Your task to perform on an android device: What's the weather going to be this weekend? Image 0: 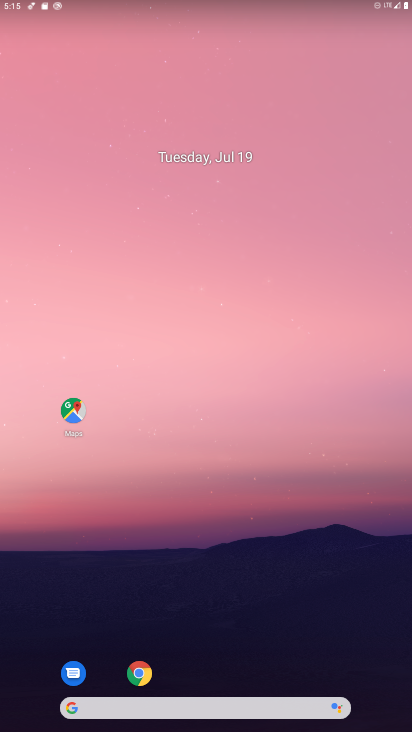
Step 0: press home button
Your task to perform on an android device: What's the weather going to be this weekend? Image 1: 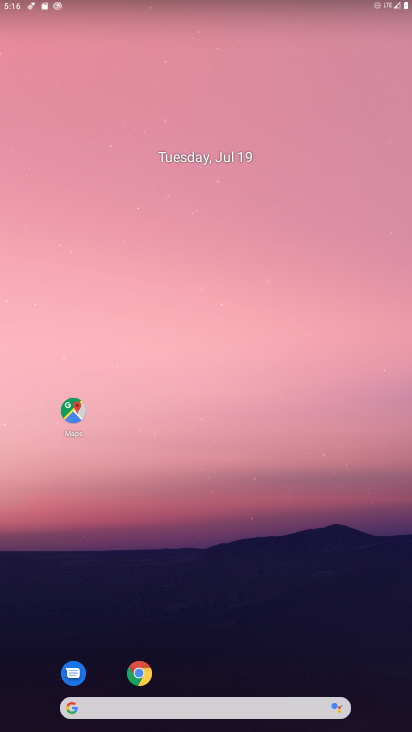
Step 1: click (176, 699)
Your task to perform on an android device: What's the weather going to be this weekend? Image 2: 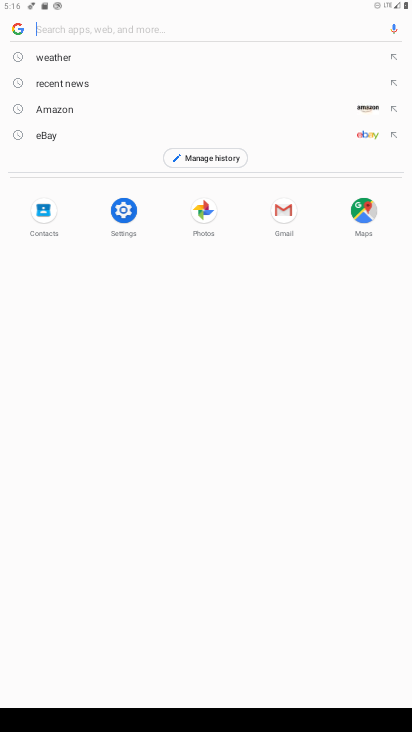
Step 2: click (76, 51)
Your task to perform on an android device: What's the weather going to be this weekend? Image 3: 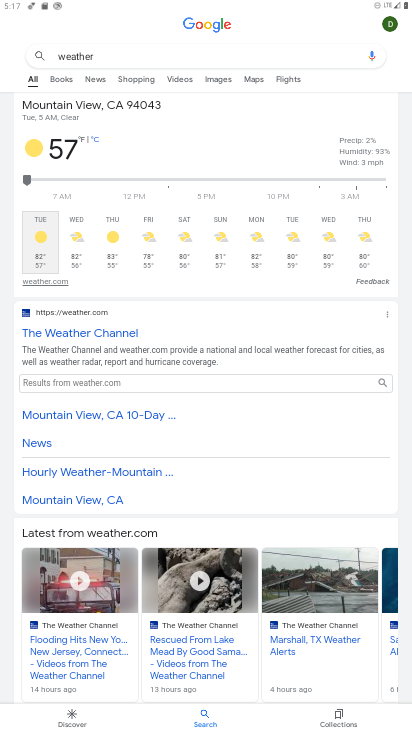
Step 3: click (186, 236)
Your task to perform on an android device: What's the weather going to be this weekend? Image 4: 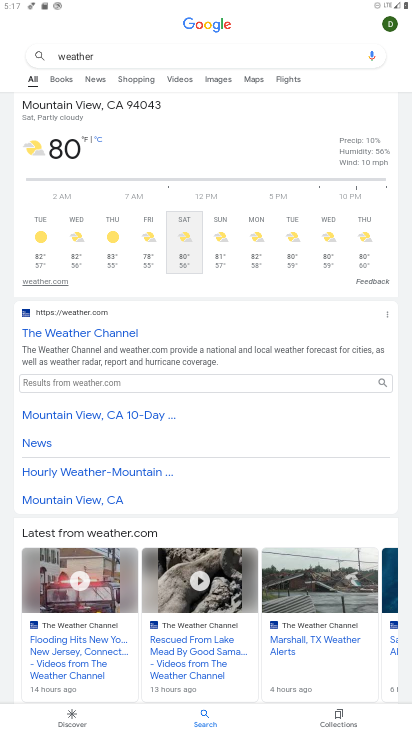
Step 4: task complete